Your task to perform on an android device: clear history in the chrome app Image 0: 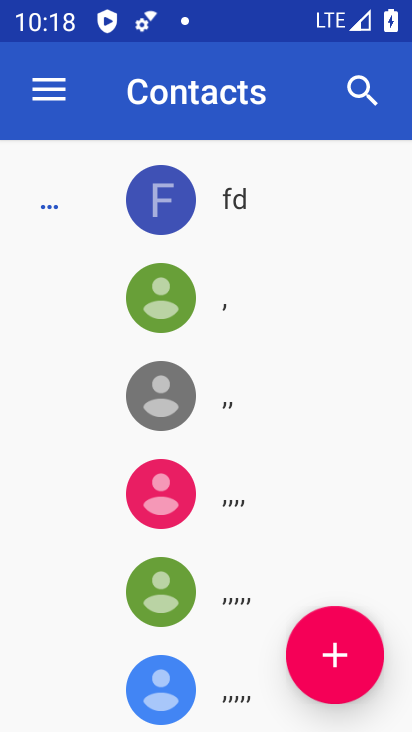
Step 0: press home button
Your task to perform on an android device: clear history in the chrome app Image 1: 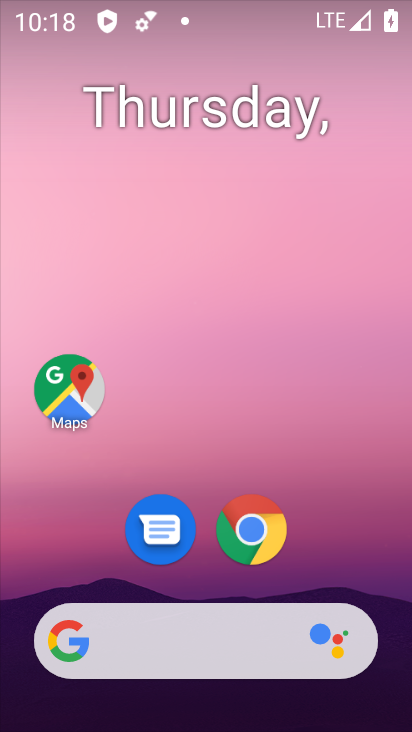
Step 1: click (229, 541)
Your task to perform on an android device: clear history in the chrome app Image 2: 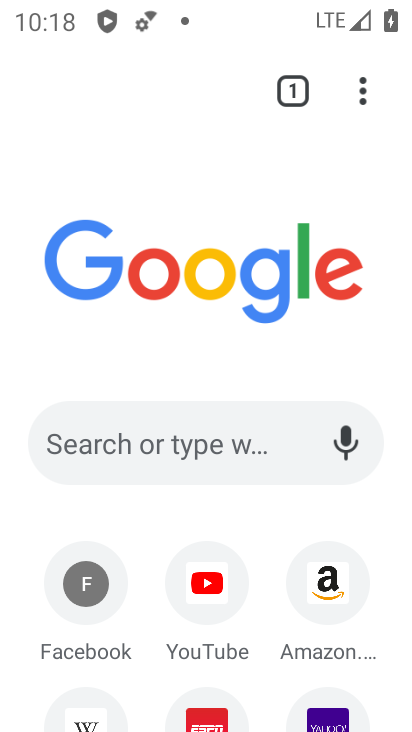
Step 2: click (357, 103)
Your task to perform on an android device: clear history in the chrome app Image 3: 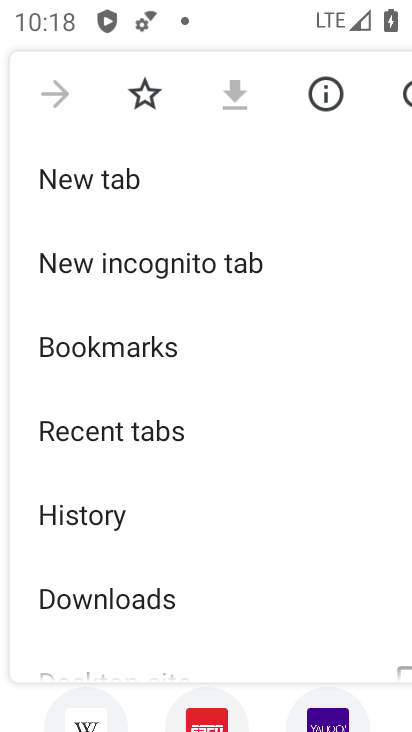
Step 3: click (98, 529)
Your task to perform on an android device: clear history in the chrome app Image 4: 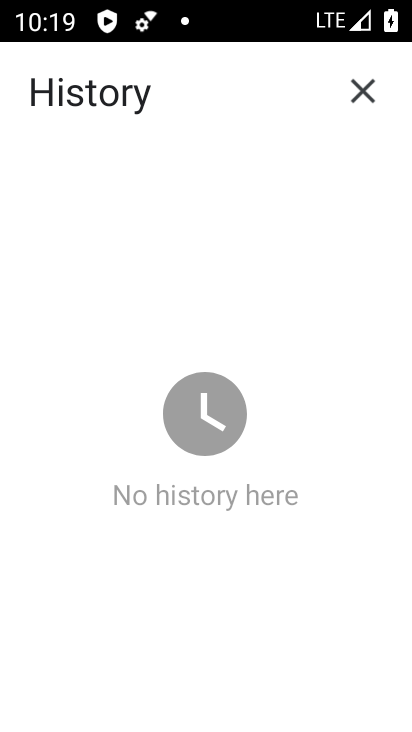
Step 4: task complete